Your task to perform on an android device: Go to Google maps Image 0: 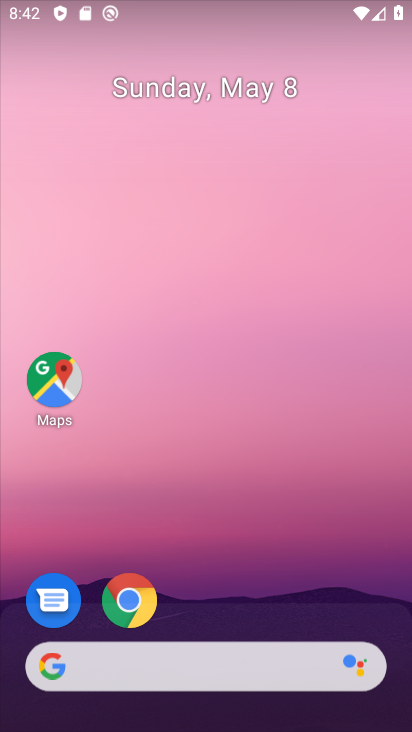
Step 0: click (56, 382)
Your task to perform on an android device: Go to Google maps Image 1: 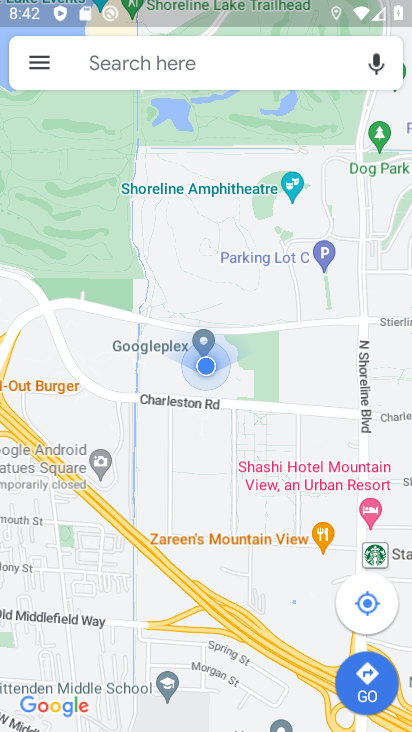
Step 1: task complete